Your task to perform on an android device: move a message to another label in the gmail app Image 0: 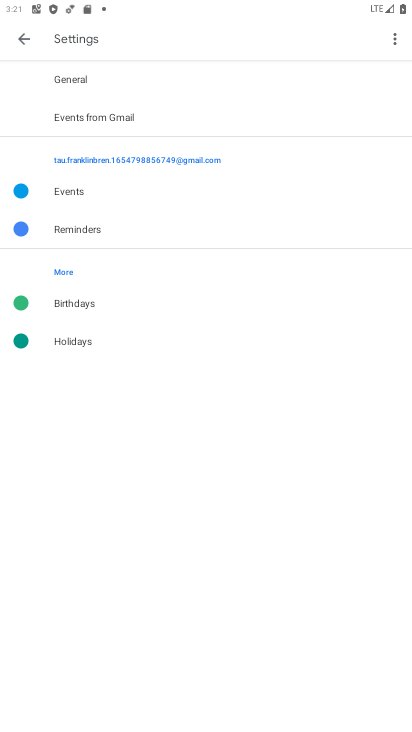
Step 0: press home button
Your task to perform on an android device: move a message to another label in the gmail app Image 1: 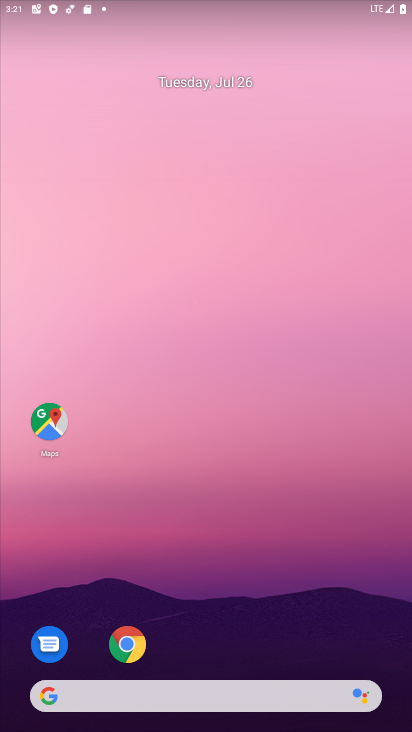
Step 1: drag from (157, 669) to (106, 175)
Your task to perform on an android device: move a message to another label in the gmail app Image 2: 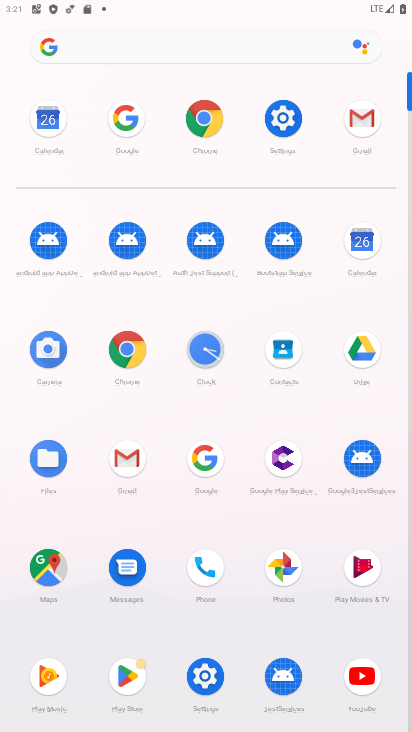
Step 2: click (120, 469)
Your task to perform on an android device: move a message to another label in the gmail app Image 3: 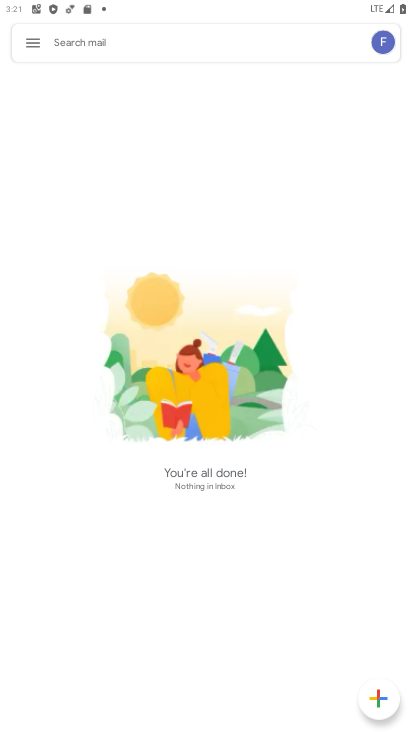
Step 3: task complete